Your task to perform on an android device: Open Google Maps and go to "Timeline" Image 0: 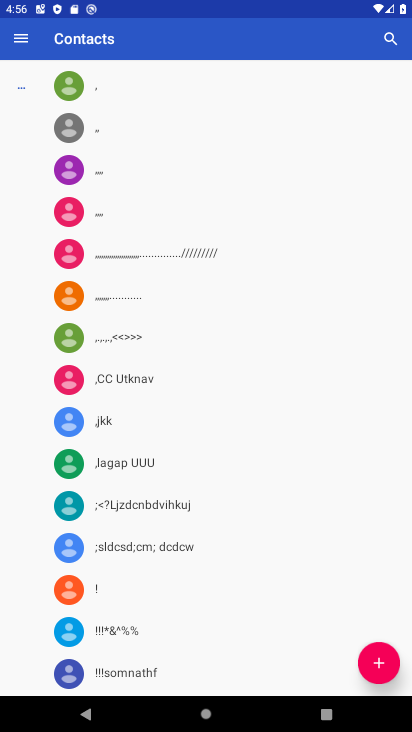
Step 0: press home button
Your task to perform on an android device: Open Google Maps and go to "Timeline" Image 1: 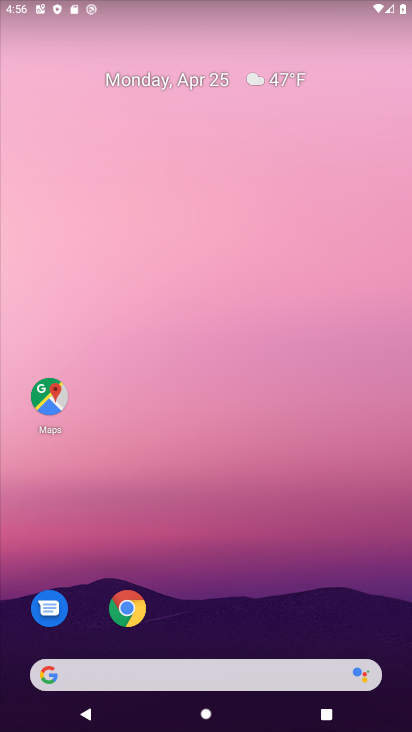
Step 1: click (44, 398)
Your task to perform on an android device: Open Google Maps and go to "Timeline" Image 2: 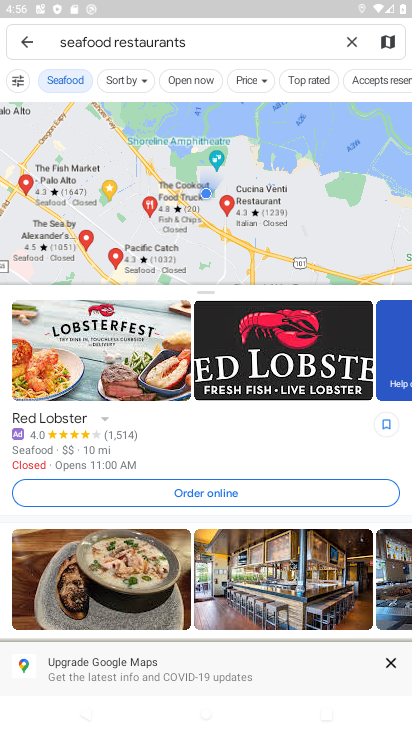
Step 2: click (30, 38)
Your task to perform on an android device: Open Google Maps and go to "Timeline" Image 3: 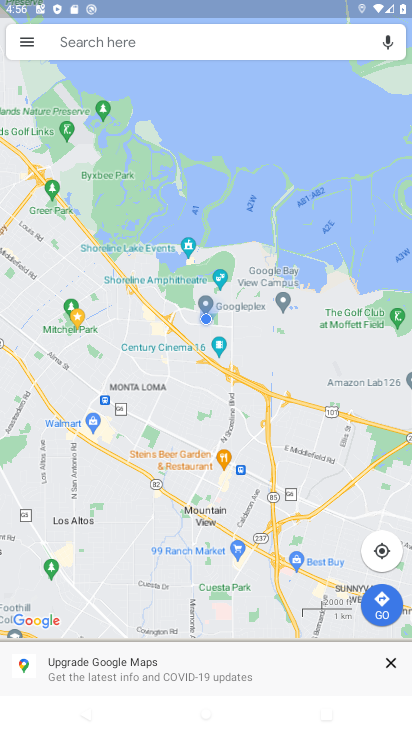
Step 3: click (30, 38)
Your task to perform on an android device: Open Google Maps and go to "Timeline" Image 4: 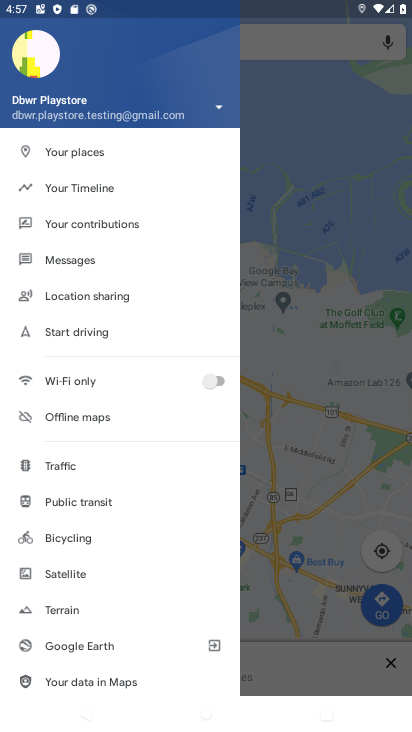
Step 4: click (74, 184)
Your task to perform on an android device: Open Google Maps and go to "Timeline" Image 5: 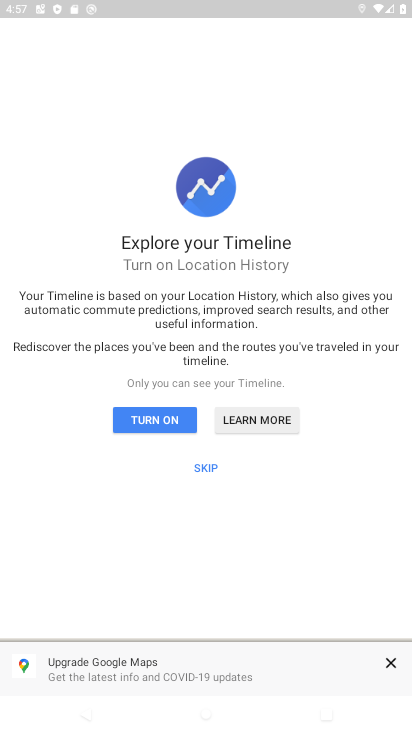
Step 5: click (196, 461)
Your task to perform on an android device: Open Google Maps and go to "Timeline" Image 6: 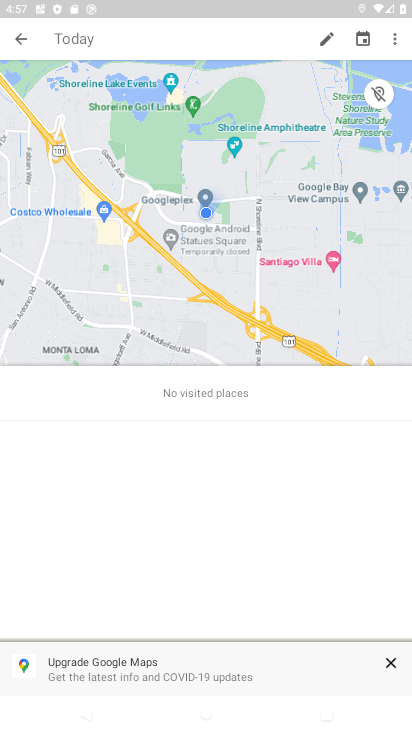
Step 6: task complete